Your task to perform on an android device: Open calendar and show me the first week of next month Image 0: 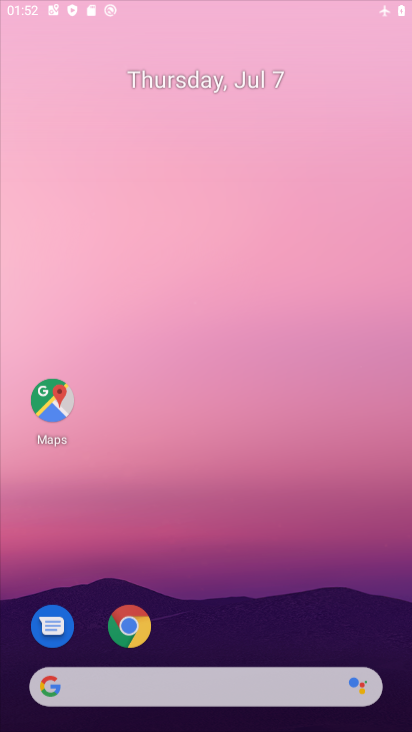
Step 0: drag from (237, 635) to (116, 10)
Your task to perform on an android device: Open calendar and show me the first week of next month Image 1: 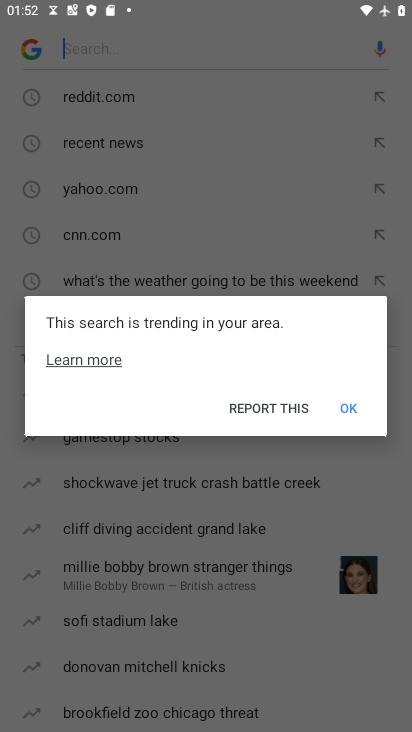
Step 1: click (352, 412)
Your task to perform on an android device: Open calendar and show me the first week of next month Image 2: 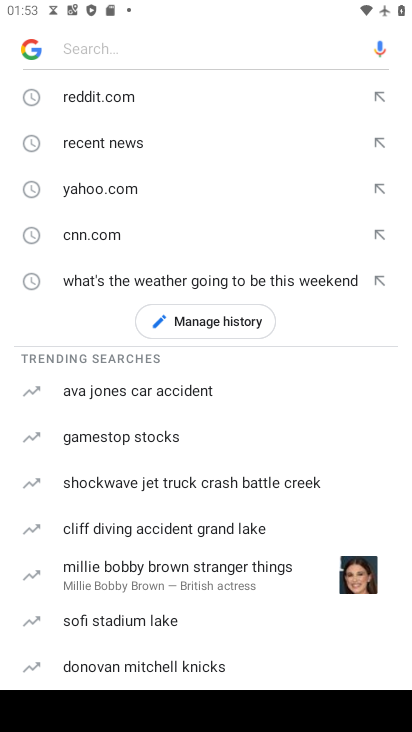
Step 2: press home button
Your task to perform on an android device: Open calendar and show me the first week of next month Image 3: 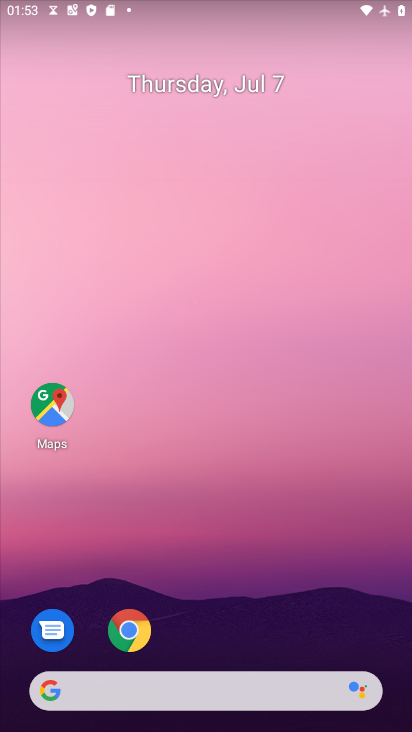
Step 3: drag from (279, 589) to (177, 177)
Your task to perform on an android device: Open calendar and show me the first week of next month Image 4: 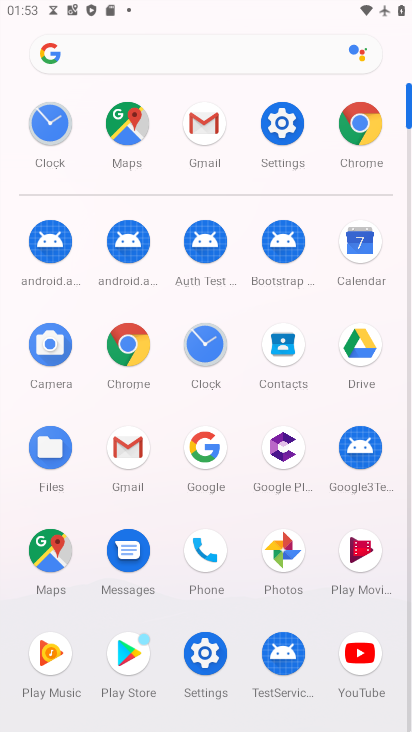
Step 4: click (363, 247)
Your task to perform on an android device: Open calendar and show me the first week of next month Image 5: 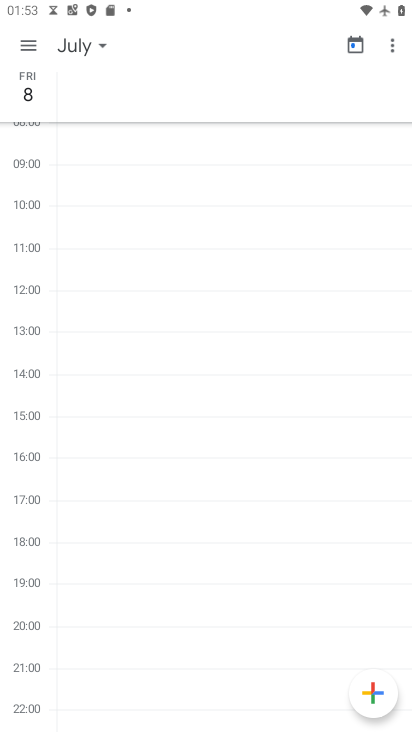
Step 5: click (85, 43)
Your task to perform on an android device: Open calendar and show me the first week of next month Image 6: 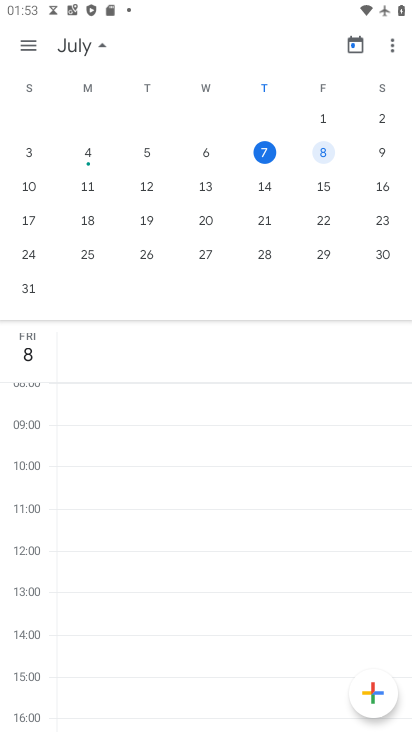
Step 6: drag from (367, 168) to (24, 187)
Your task to perform on an android device: Open calendar and show me the first week of next month Image 7: 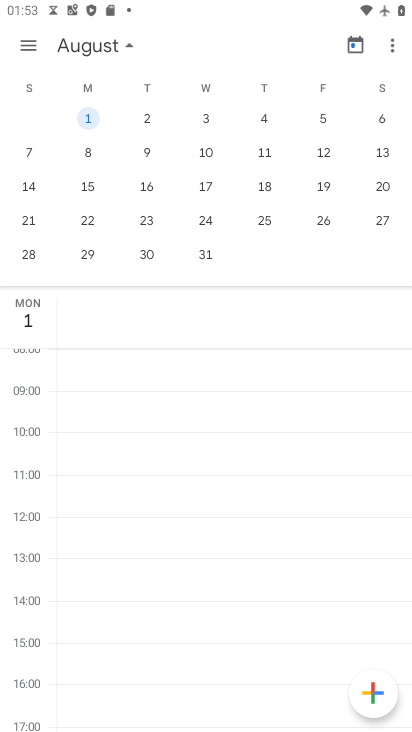
Step 7: click (26, 57)
Your task to perform on an android device: Open calendar and show me the first week of next month Image 8: 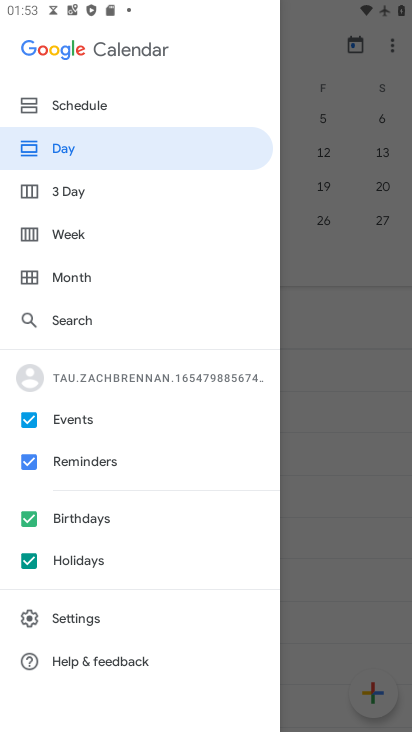
Step 8: click (65, 238)
Your task to perform on an android device: Open calendar and show me the first week of next month Image 9: 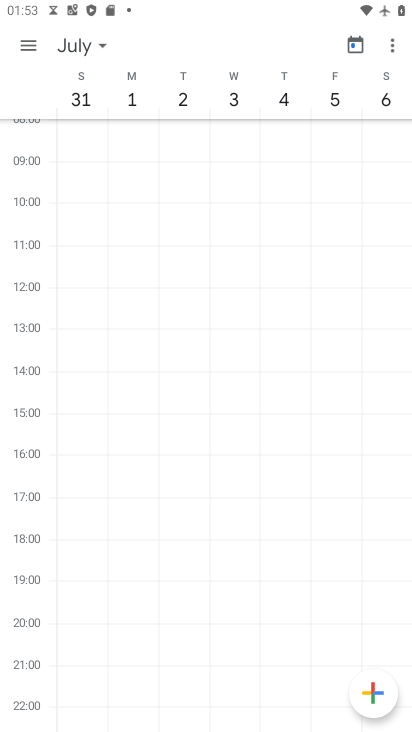
Step 9: task complete